Your task to perform on an android device: Check the news Image 0: 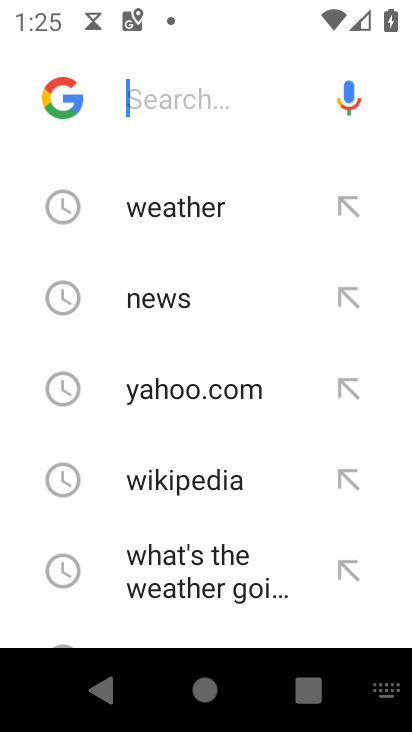
Step 0: click (198, 310)
Your task to perform on an android device: Check the news Image 1: 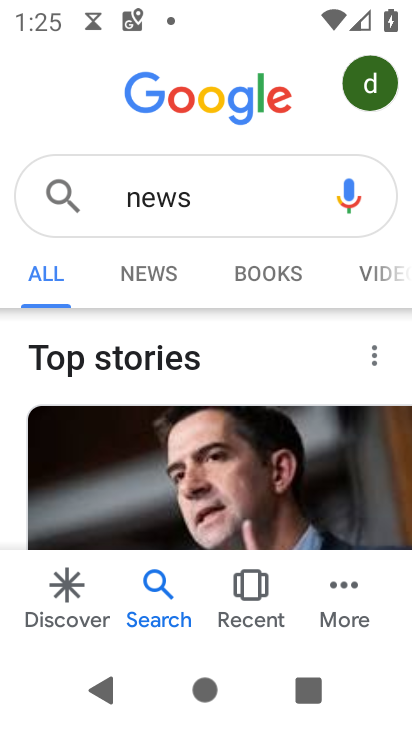
Step 1: click (168, 262)
Your task to perform on an android device: Check the news Image 2: 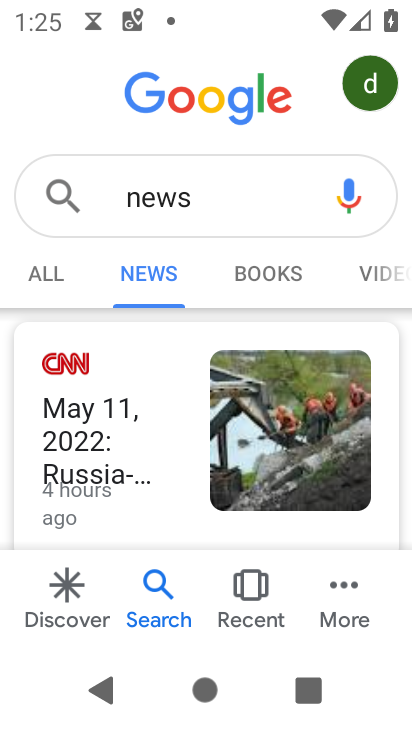
Step 2: task complete